Your task to perform on an android device: Open eBay Image 0: 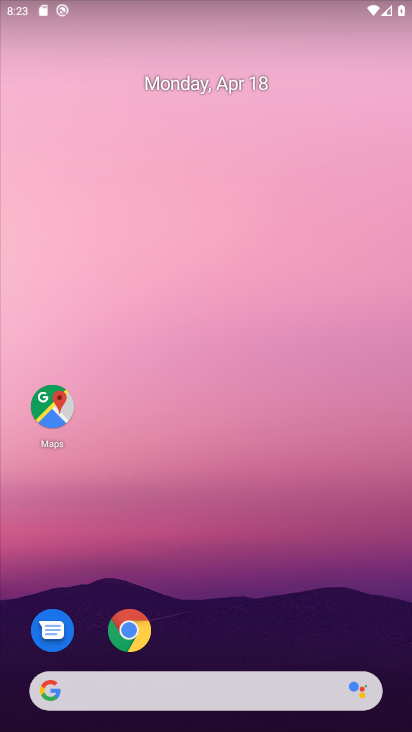
Step 0: click (134, 642)
Your task to perform on an android device: Open eBay Image 1: 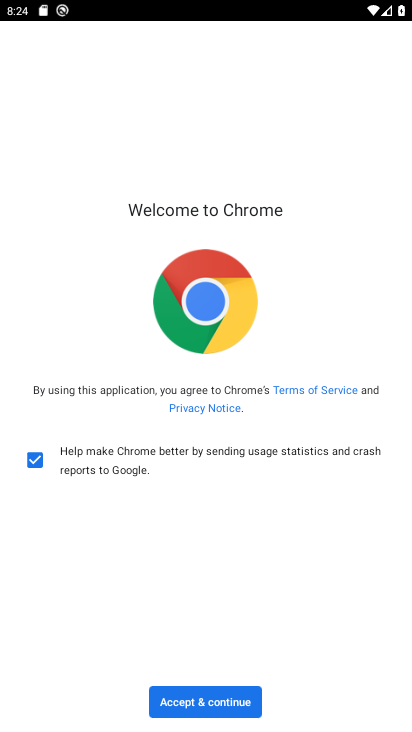
Step 1: click (233, 703)
Your task to perform on an android device: Open eBay Image 2: 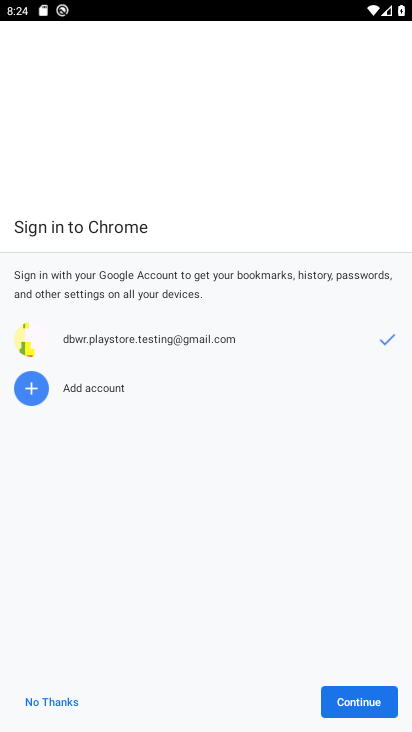
Step 2: click (381, 699)
Your task to perform on an android device: Open eBay Image 3: 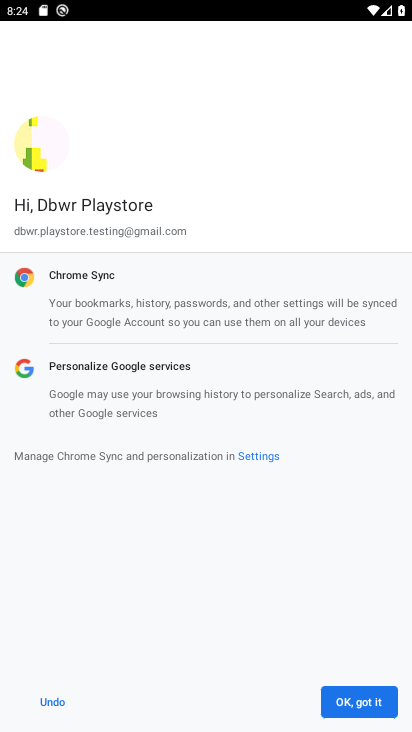
Step 3: click (374, 700)
Your task to perform on an android device: Open eBay Image 4: 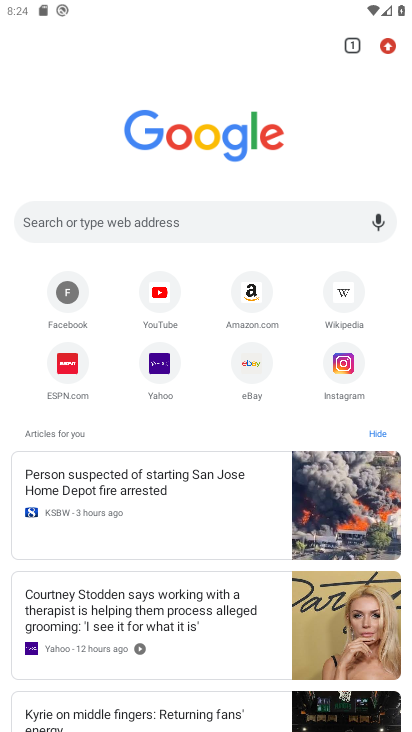
Step 4: click (248, 364)
Your task to perform on an android device: Open eBay Image 5: 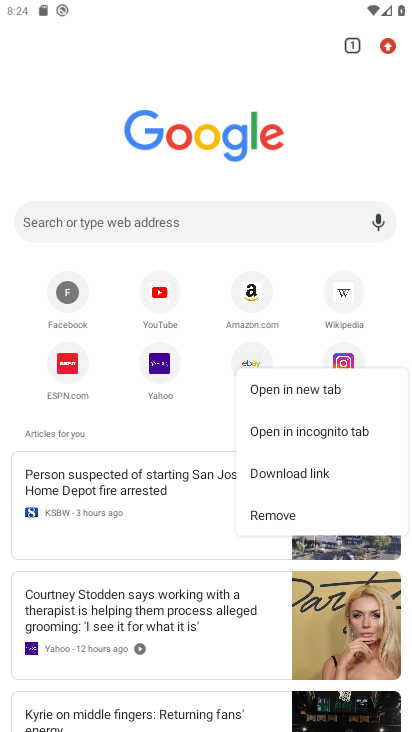
Step 5: click (243, 339)
Your task to perform on an android device: Open eBay Image 6: 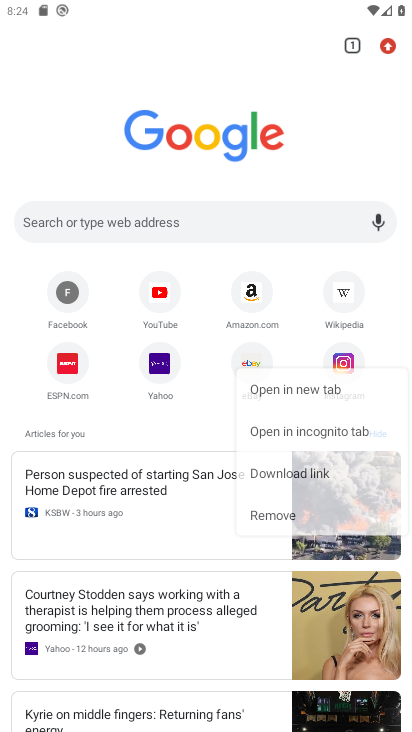
Step 6: click (250, 364)
Your task to perform on an android device: Open eBay Image 7: 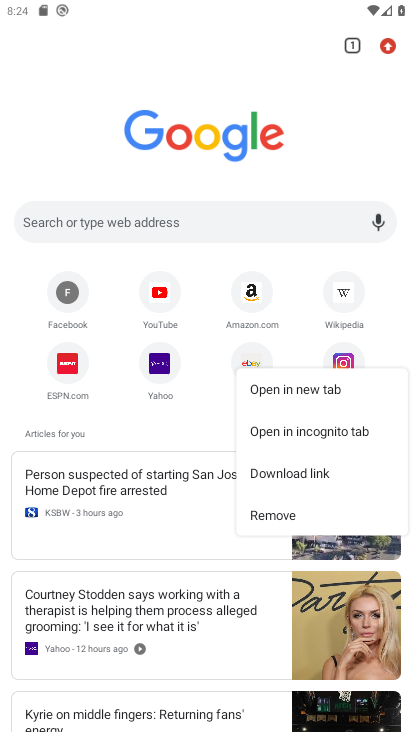
Step 7: click (235, 361)
Your task to perform on an android device: Open eBay Image 8: 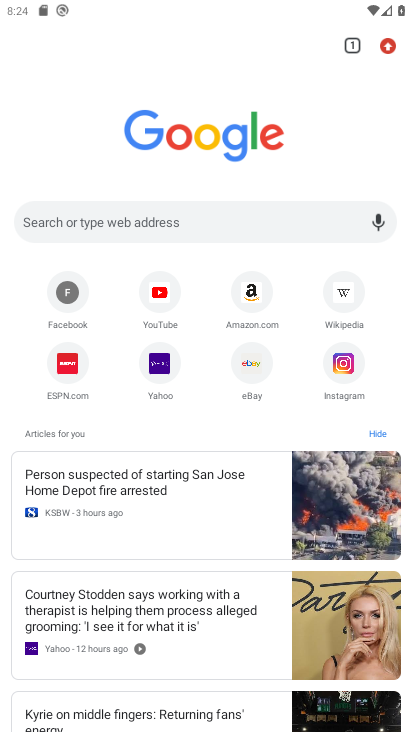
Step 8: click (261, 374)
Your task to perform on an android device: Open eBay Image 9: 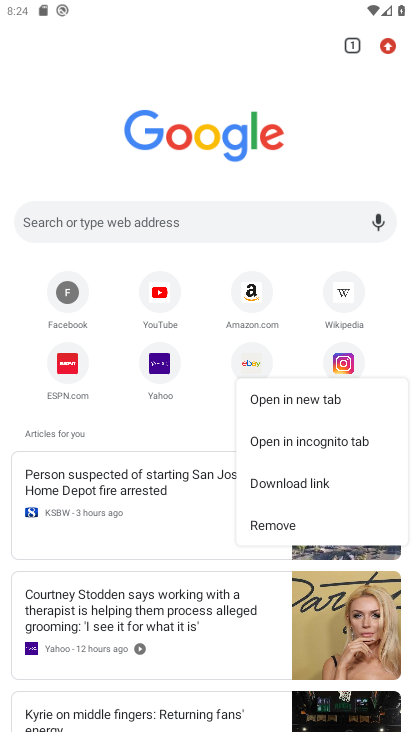
Step 9: click (255, 365)
Your task to perform on an android device: Open eBay Image 10: 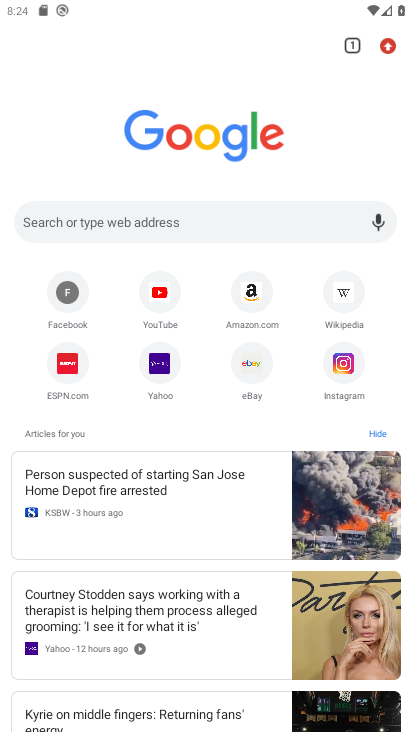
Step 10: click (248, 371)
Your task to perform on an android device: Open eBay Image 11: 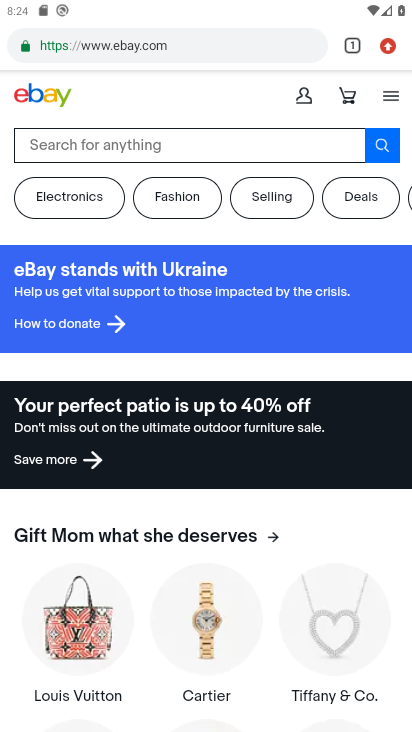
Step 11: task complete